Your task to perform on an android device: Go to Amazon Image 0: 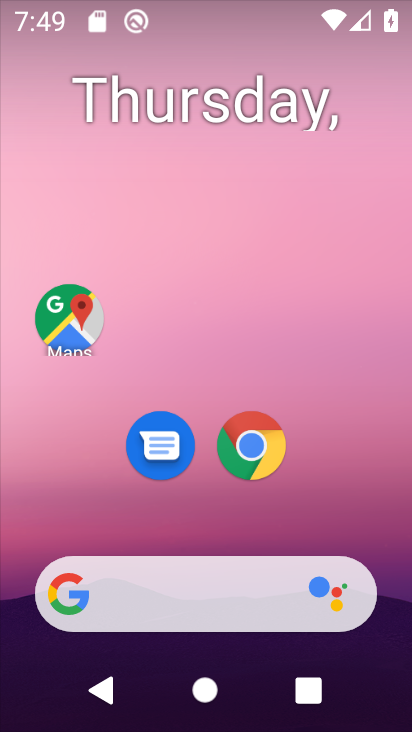
Step 0: drag from (349, 675) to (250, 90)
Your task to perform on an android device: Go to Amazon Image 1: 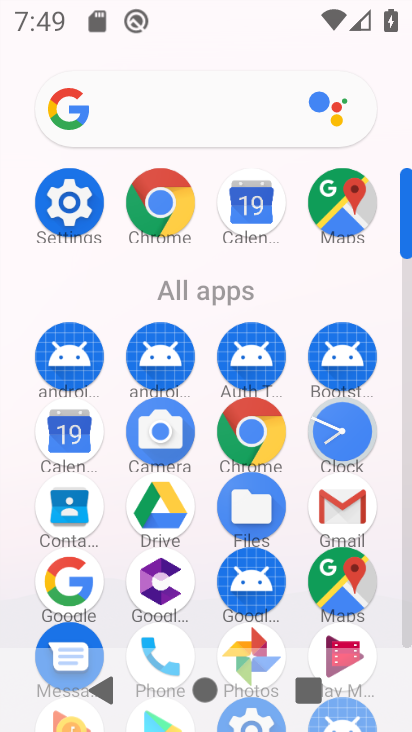
Step 1: click (150, 211)
Your task to perform on an android device: Go to Amazon Image 2: 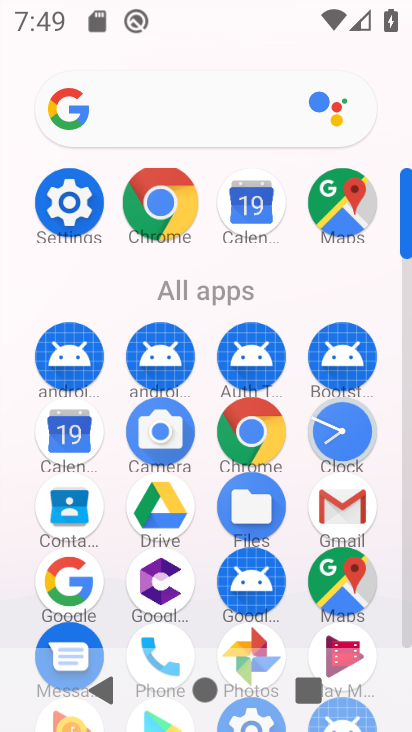
Step 2: click (152, 210)
Your task to perform on an android device: Go to Amazon Image 3: 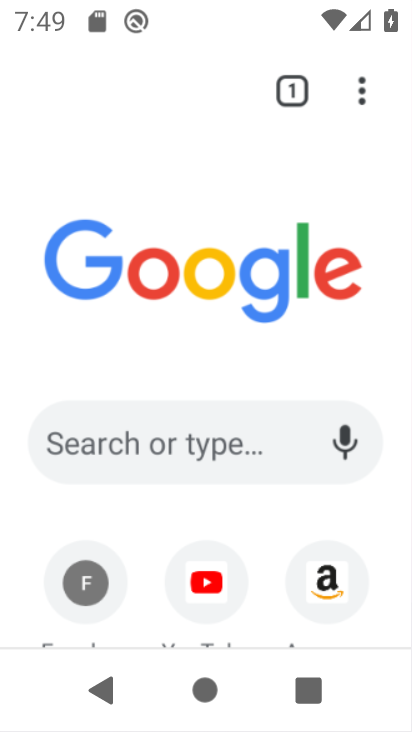
Step 3: click (152, 210)
Your task to perform on an android device: Go to Amazon Image 4: 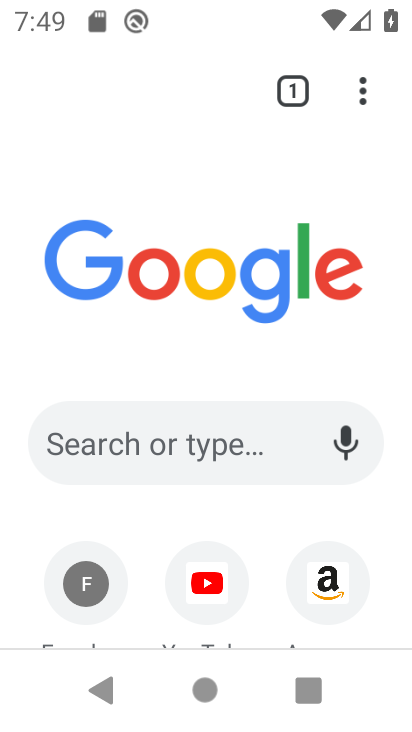
Step 4: drag from (268, 494) to (230, 34)
Your task to perform on an android device: Go to Amazon Image 5: 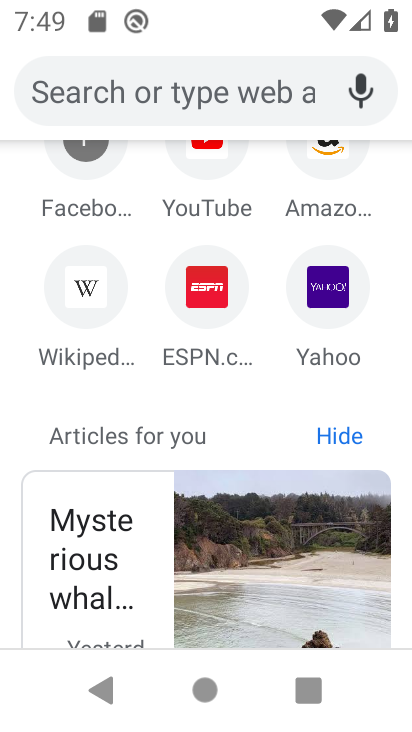
Step 5: drag from (258, 213) to (327, 527)
Your task to perform on an android device: Go to Amazon Image 6: 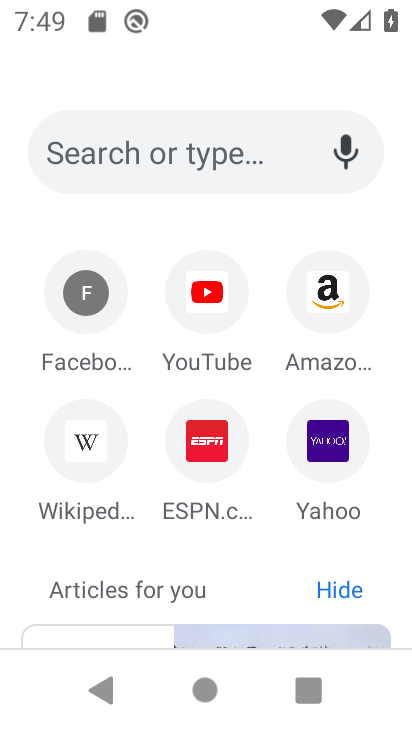
Step 6: click (320, 303)
Your task to perform on an android device: Go to Amazon Image 7: 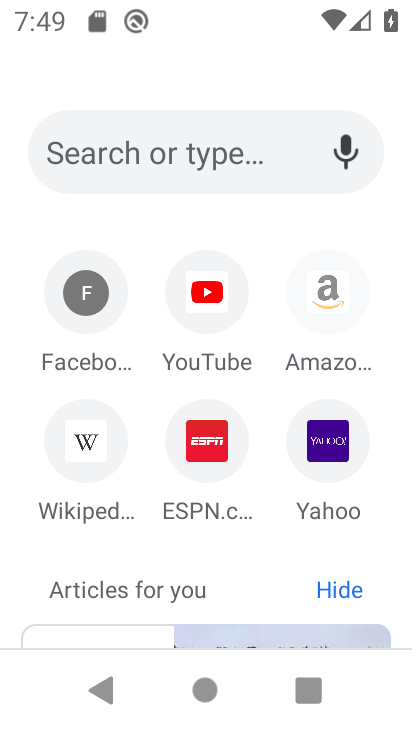
Step 7: click (320, 303)
Your task to perform on an android device: Go to Amazon Image 8: 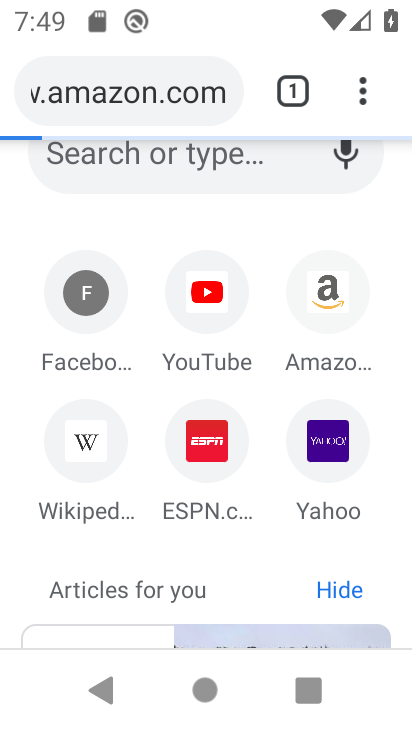
Step 8: click (320, 303)
Your task to perform on an android device: Go to Amazon Image 9: 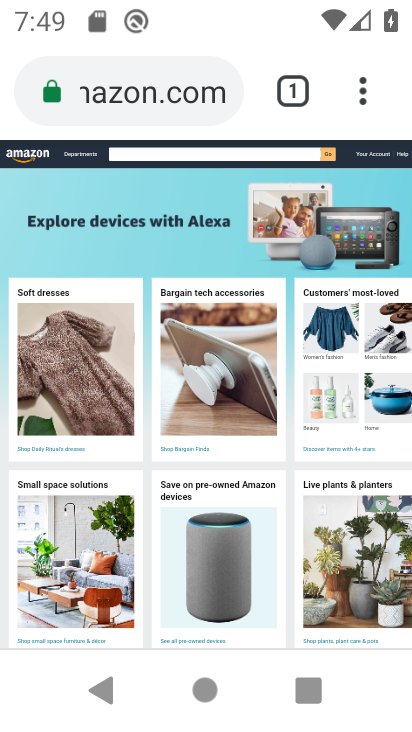
Step 9: task complete